Your task to perform on an android device: see tabs open on other devices in the chrome app Image 0: 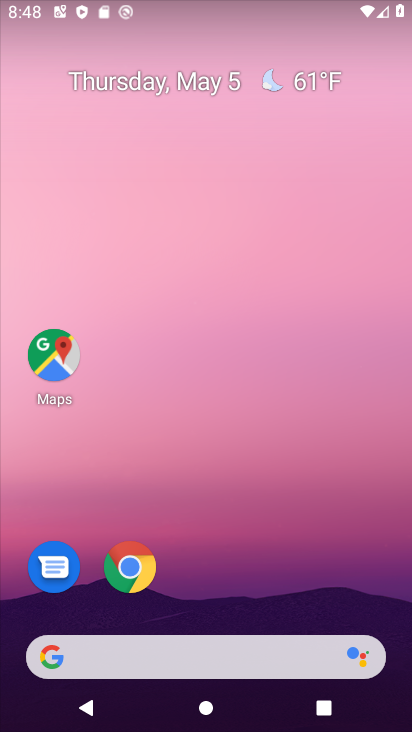
Step 0: click (139, 569)
Your task to perform on an android device: see tabs open on other devices in the chrome app Image 1: 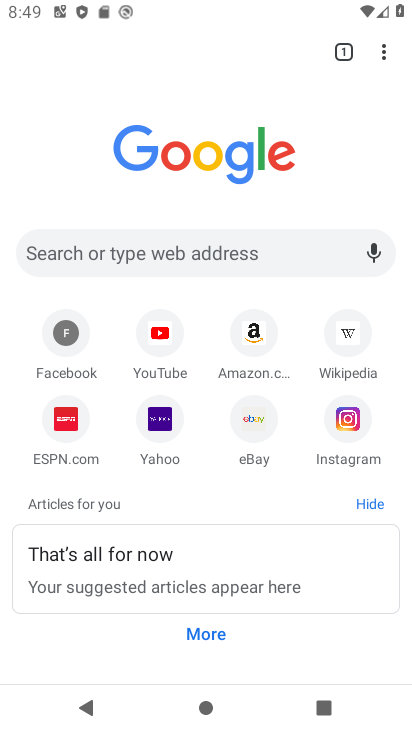
Step 1: click (390, 53)
Your task to perform on an android device: see tabs open on other devices in the chrome app Image 2: 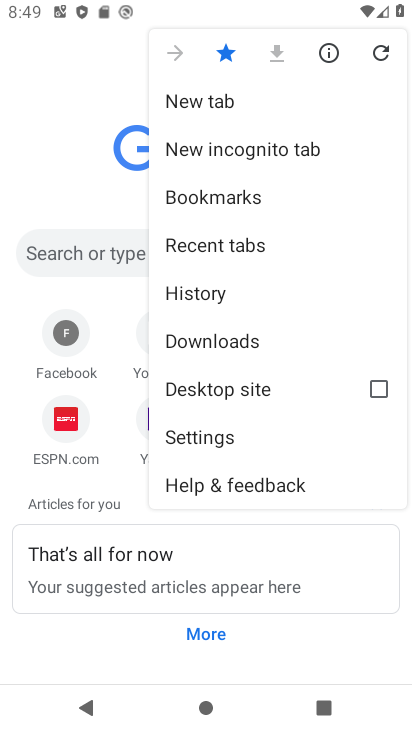
Step 2: click (212, 242)
Your task to perform on an android device: see tabs open on other devices in the chrome app Image 3: 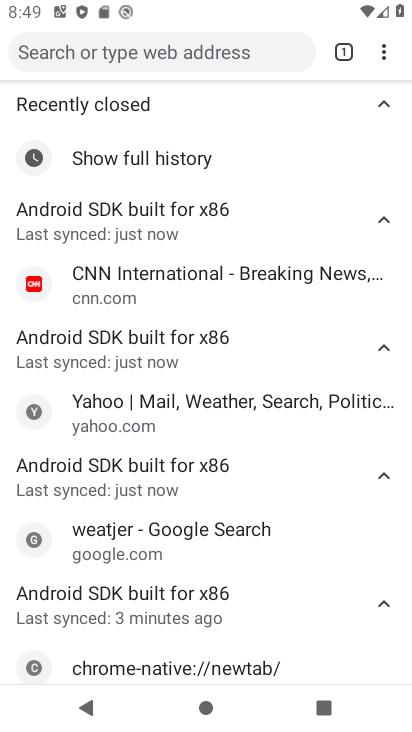
Step 3: task complete